Your task to perform on an android device: delete the emails in spam in the gmail app Image 0: 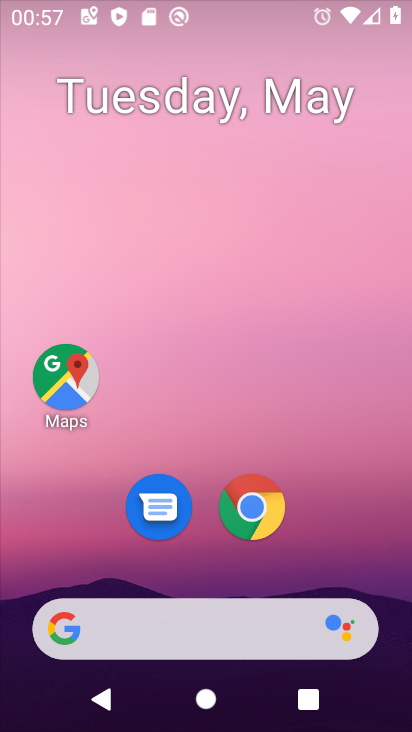
Step 0: drag from (201, 597) to (203, 266)
Your task to perform on an android device: delete the emails in spam in the gmail app Image 1: 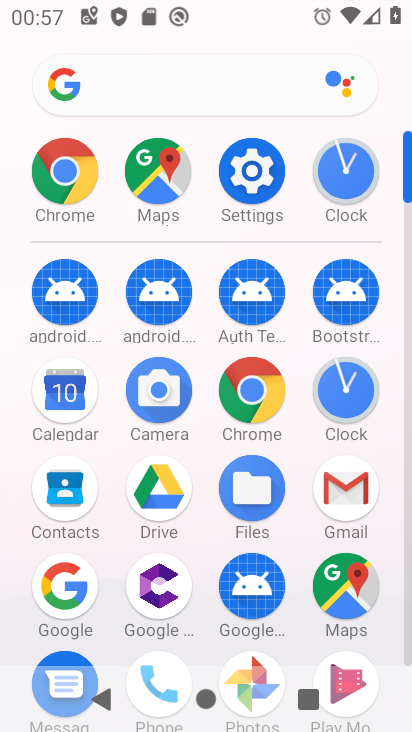
Step 1: click (330, 480)
Your task to perform on an android device: delete the emails in spam in the gmail app Image 2: 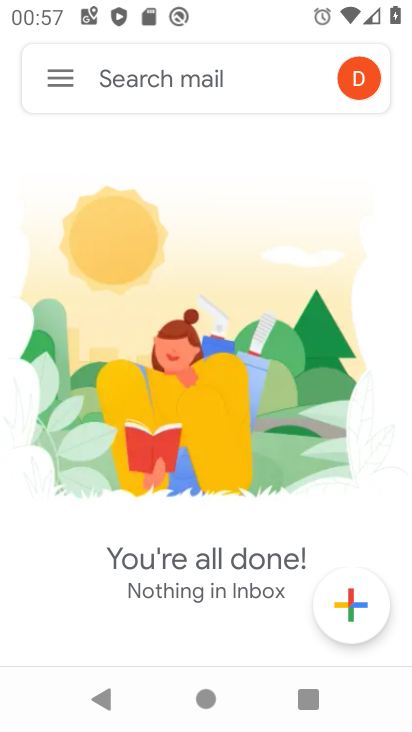
Step 2: click (45, 79)
Your task to perform on an android device: delete the emails in spam in the gmail app Image 3: 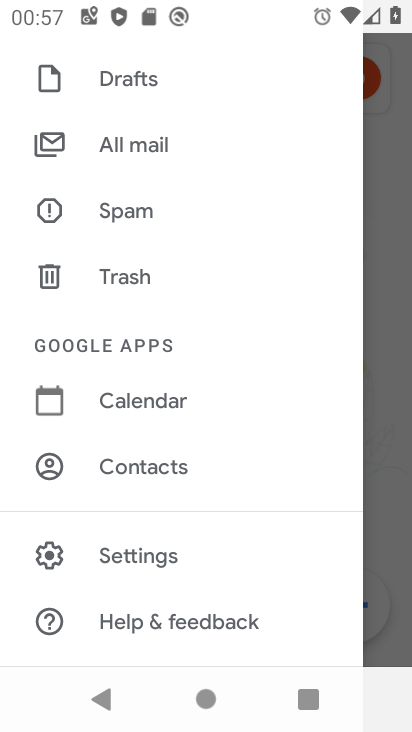
Step 3: click (112, 210)
Your task to perform on an android device: delete the emails in spam in the gmail app Image 4: 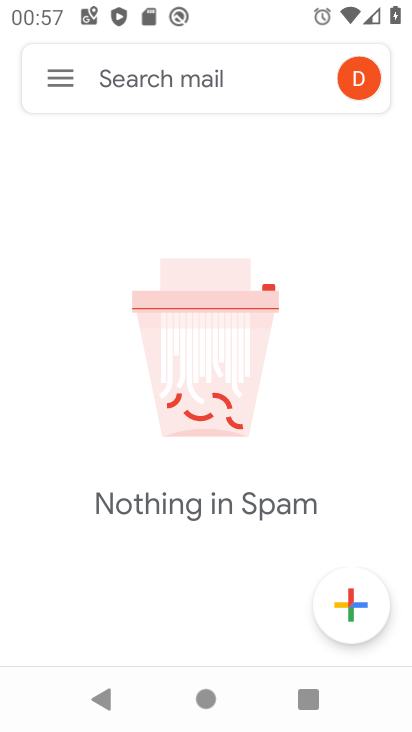
Step 4: task complete